Your task to perform on an android device: Search for the best rated 4K TV on Best Buy. Image 0: 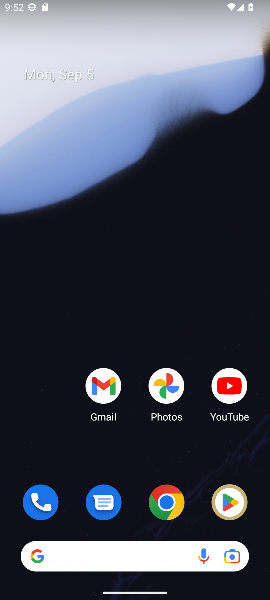
Step 0: drag from (165, 321) to (111, 23)
Your task to perform on an android device: Search for the best rated 4K TV on Best Buy. Image 1: 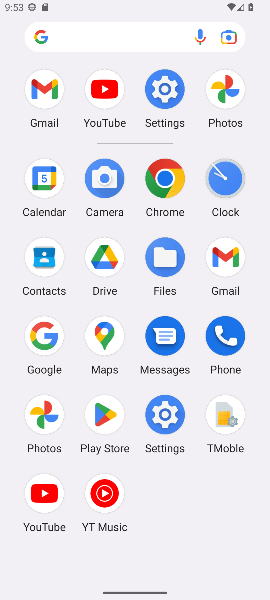
Step 1: click (43, 332)
Your task to perform on an android device: Search for the best rated 4K TV on Best Buy. Image 2: 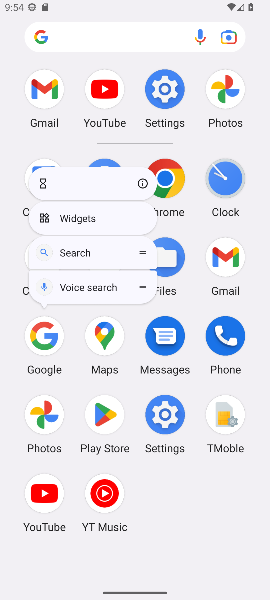
Step 2: click (43, 332)
Your task to perform on an android device: Search for the best rated 4K TV on Best Buy. Image 3: 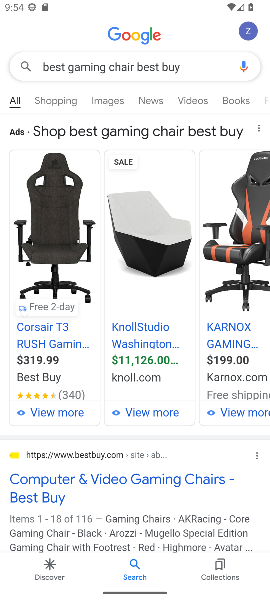
Step 3: press back button
Your task to perform on an android device: Search for the best rated 4K TV on Best Buy. Image 4: 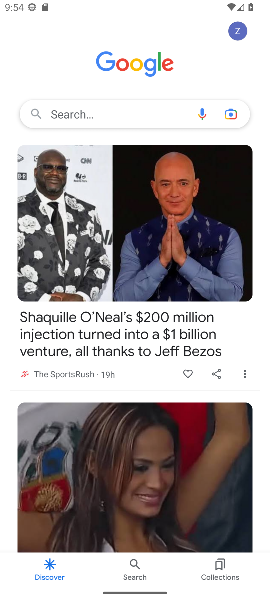
Step 4: click (87, 107)
Your task to perform on an android device: Search for the best rated 4K TV on Best Buy. Image 5: 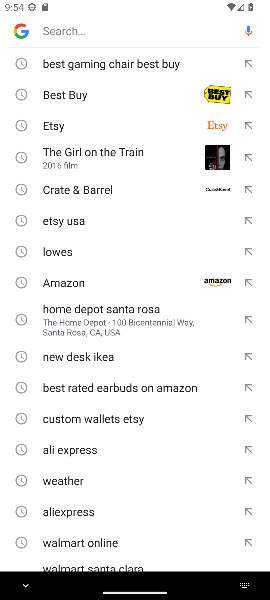
Step 5: click (233, 597)
Your task to perform on an android device: Search for the best rated 4K TV on Best Buy. Image 6: 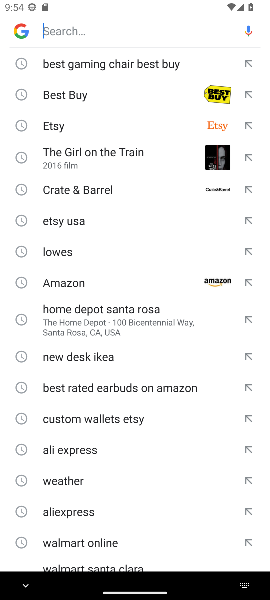
Step 6: type "best rated 4K TV on Best Buy"
Your task to perform on an android device: Search for the best rated 4K TV on Best Buy. Image 7: 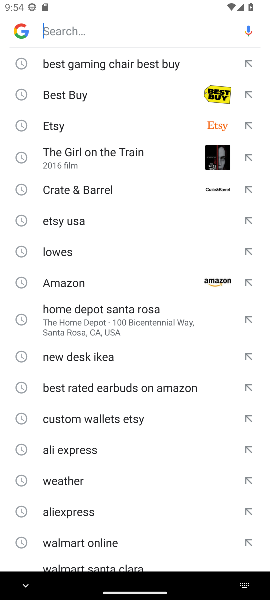
Step 7: drag from (247, 596) to (254, 213)
Your task to perform on an android device: Search for the best rated 4K TV on Best Buy. Image 8: 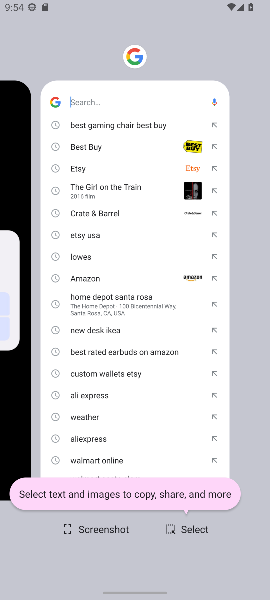
Step 8: click (106, 177)
Your task to perform on an android device: Search for the best rated 4K TV on Best Buy. Image 9: 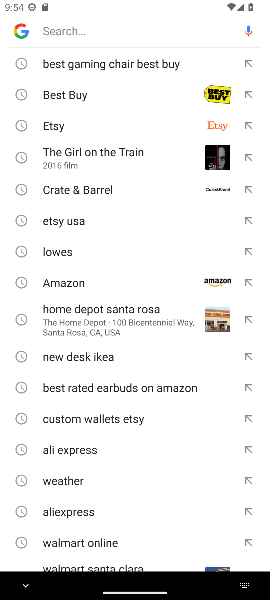
Step 9: type "best rated 4K TV on Best Buy"
Your task to perform on an android device: Search for the best rated 4K TV on Best Buy. Image 10: 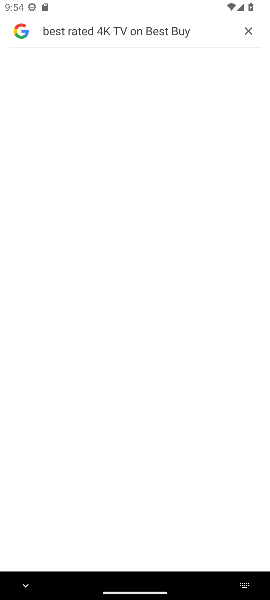
Step 10: task complete